Your task to perform on an android device: turn off smart reply in the gmail app Image 0: 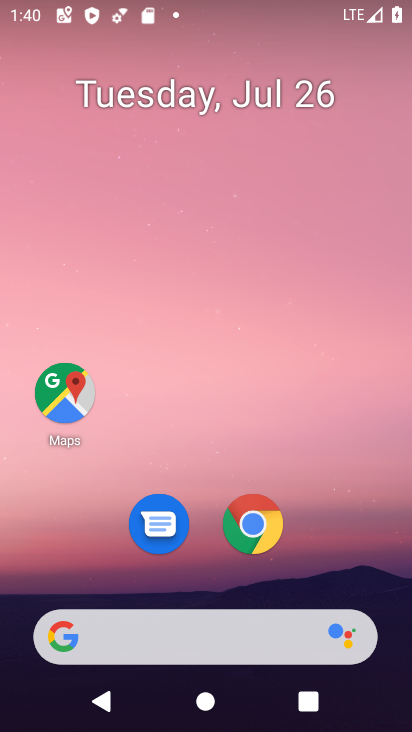
Step 0: drag from (340, 463) to (390, 41)
Your task to perform on an android device: turn off smart reply in the gmail app Image 1: 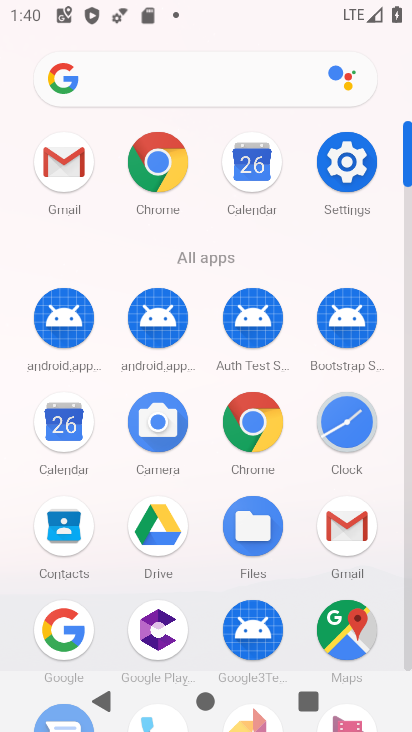
Step 1: click (59, 161)
Your task to perform on an android device: turn off smart reply in the gmail app Image 2: 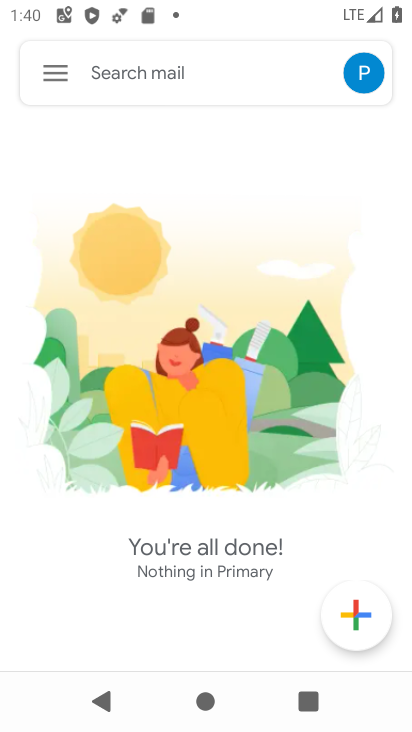
Step 2: click (65, 67)
Your task to perform on an android device: turn off smart reply in the gmail app Image 3: 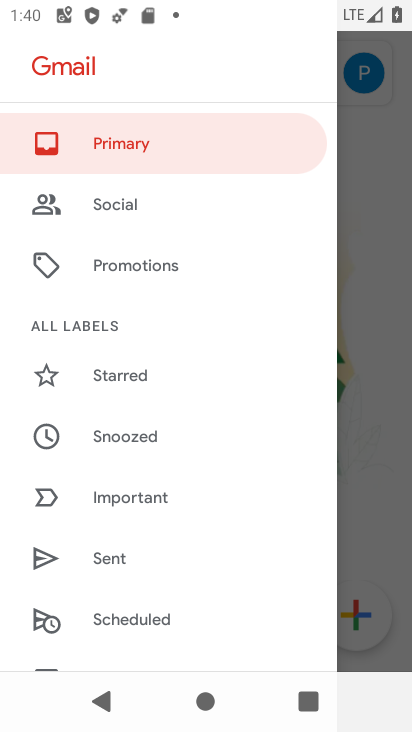
Step 3: drag from (114, 551) to (233, 0)
Your task to perform on an android device: turn off smart reply in the gmail app Image 4: 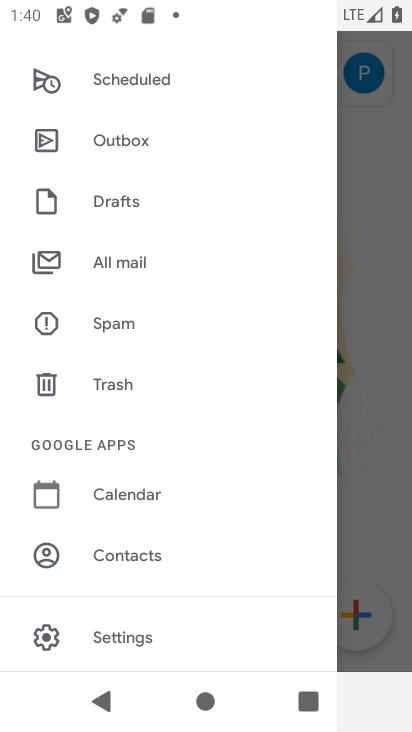
Step 4: click (139, 642)
Your task to perform on an android device: turn off smart reply in the gmail app Image 5: 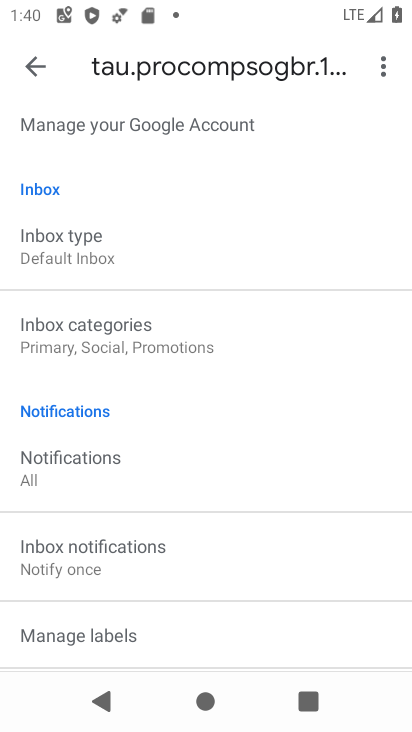
Step 5: drag from (210, 446) to (231, 131)
Your task to perform on an android device: turn off smart reply in the gmail app Image 6: 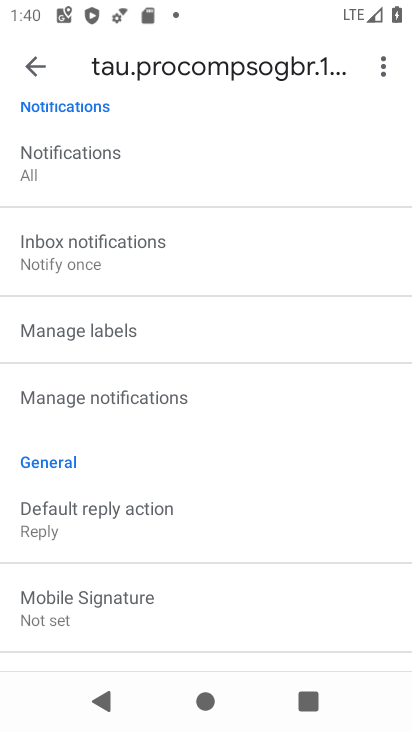
Step 6: drag from (174, 489) to (213, 104)
Your task to perform on an android device: turn off smart reply in the gmail app Image 7: 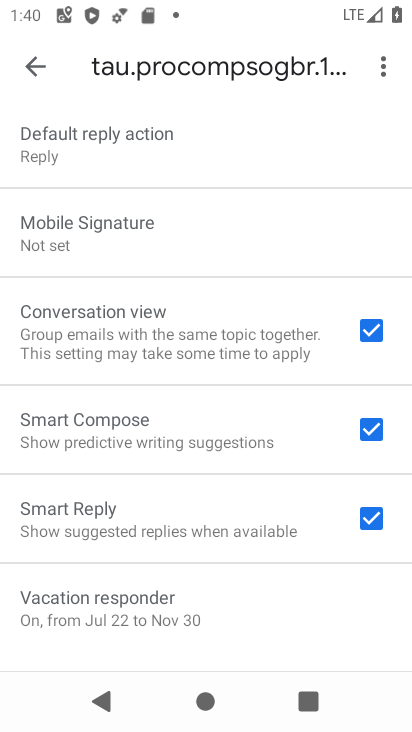
Step 7: click (376, 520)
Your task to perform on an android device: turn off smart reply in the gmail app Image 8: 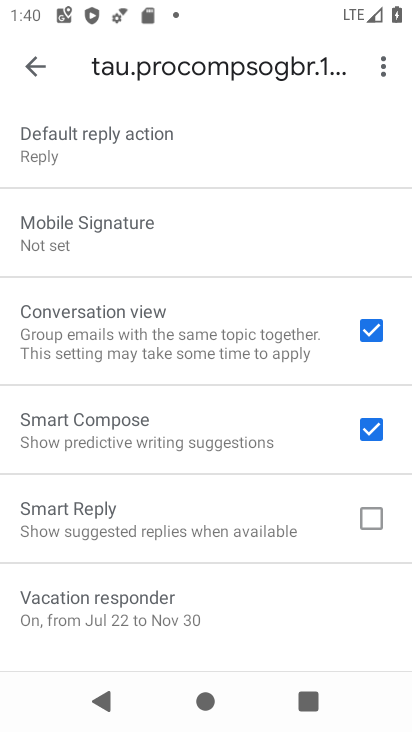
Step 8: task complete